Your task to perform on an android device: clear history in the chrome app Image 0: 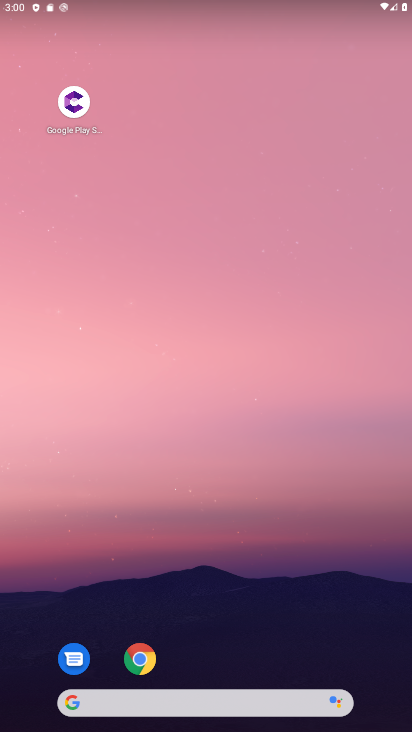
Step 0: click (145, 665)
Your task to perform on an android device: clear history in the chrome app Image 1: 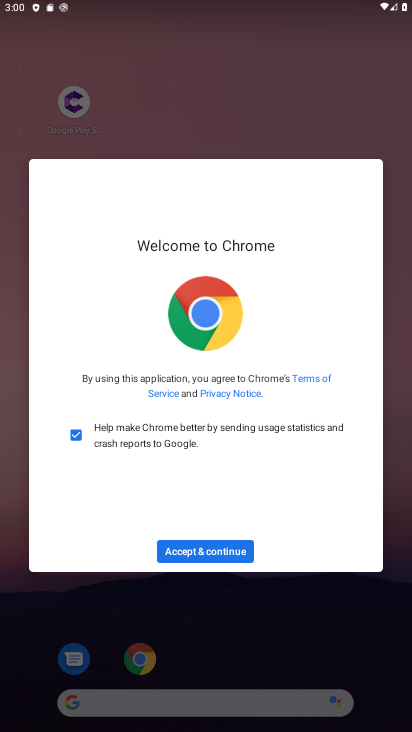
Step 1: click (215, 550)
Your task to perform on an android device: clear history in the chrome app Image 2: 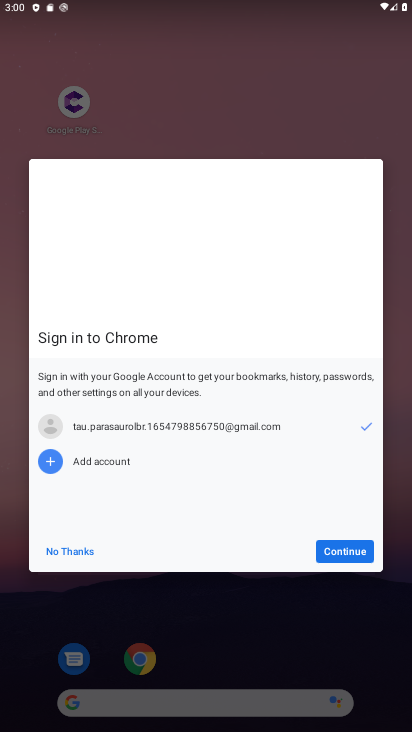
Step 2: click (65, 558)
Your task to perform on an android device: clear history in the chrome app Image 3: 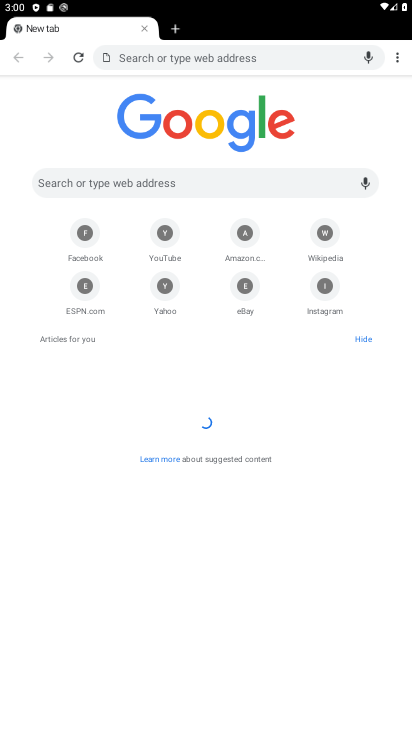
Step 3: drag from (398, 58) to (285, 268)
Your task to perform on an android device: clear history in the chrome app Image 4: 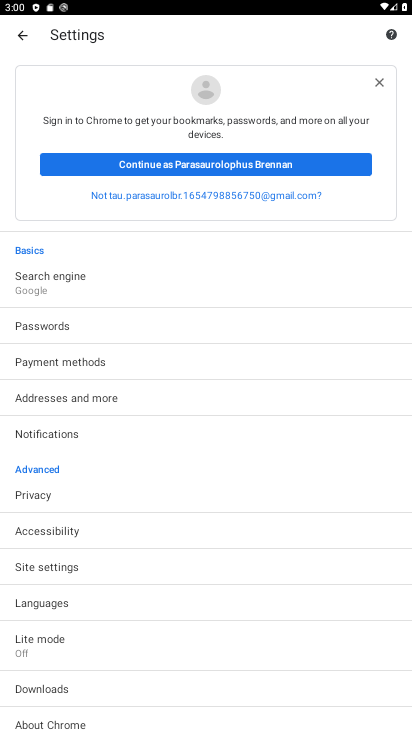
Step 4: click (45, 494)
Your task to perform on an android device: clear history in the chrome app Image 5: 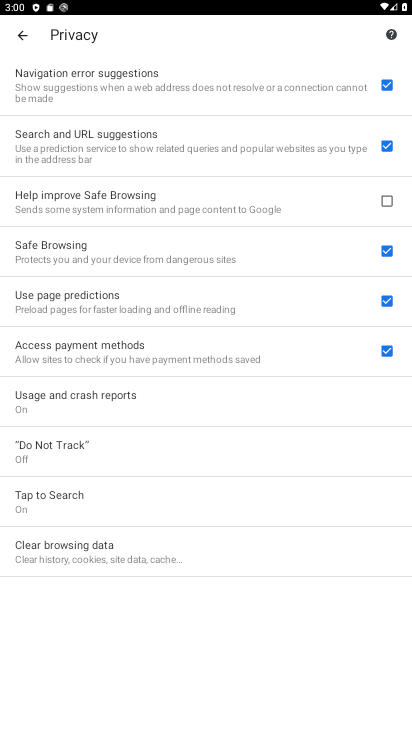
Step 5: click (49, 544)
Your task to perform on an android device: clear history in the chrome app Image 6: 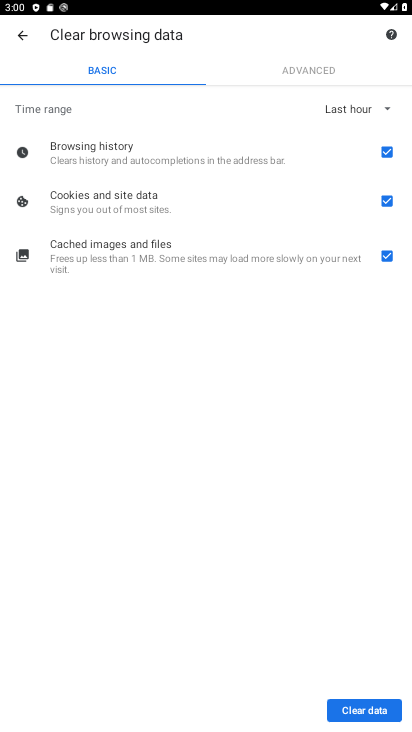
Step 6: click (387, 257)
Your task to perform on an android device: clear history in the chrome app Image 7: 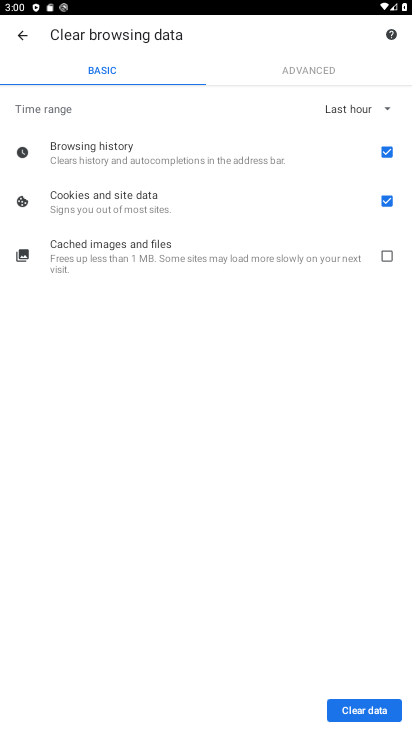
Step 7: click (387, 198)
Your task to perform on an android device: clear history in the chrome app Image 8: 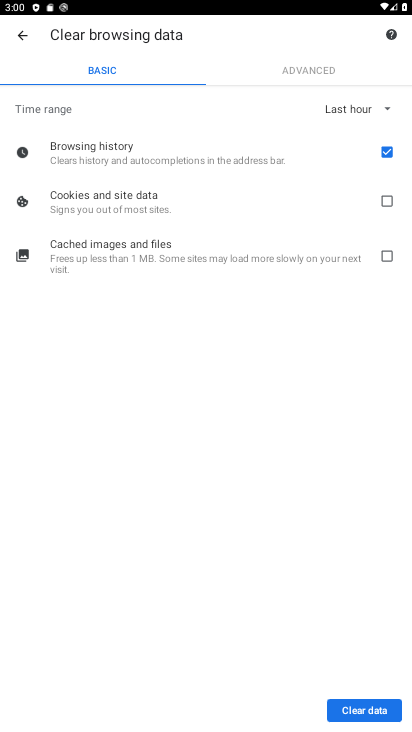
Step 8: click (365, 713)
Your task to perform on an android device: clear history in the chrome app Image 9: 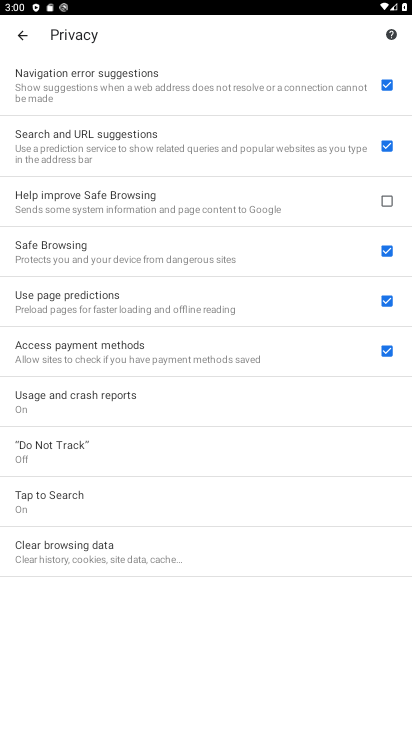
Step 9: task complete